Your task to perform on an android device: find which apps use the phone's location Image 0: 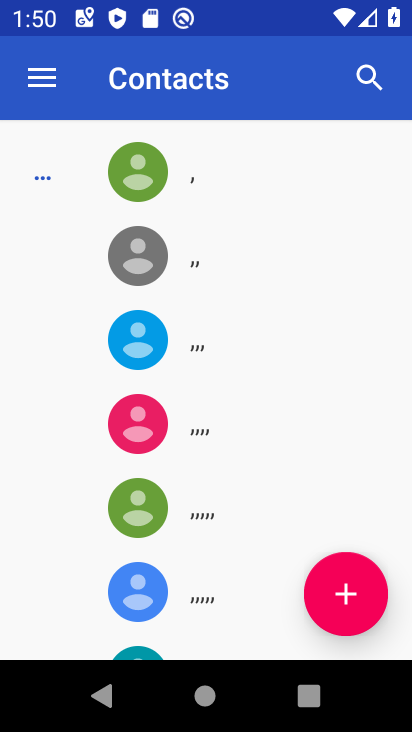
Step 0: press home button
Your task to perform on an android device: find which apps use the phone's location Image 1: 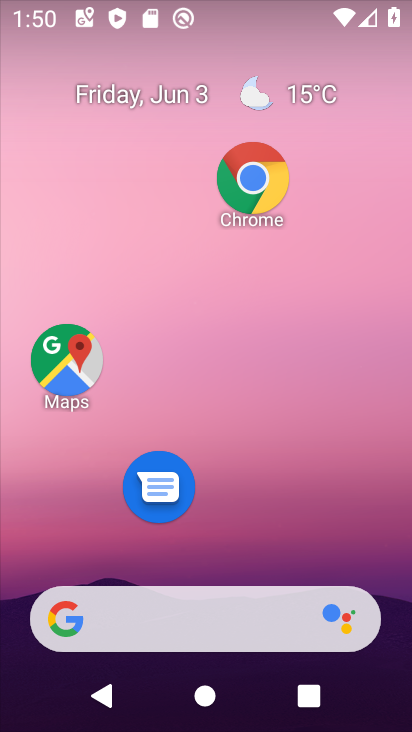
Step 1: drag from (239, 566) to (220, 142)
Your task to perform on an android device: find which apps use the phone's location Image 2: 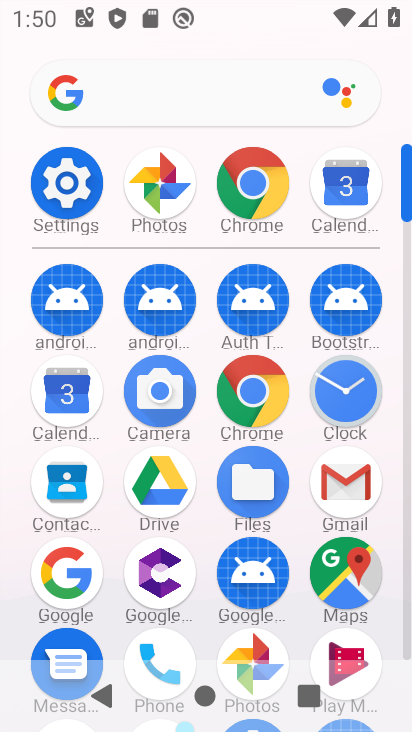
Step 2: click (71, 186)
Your task to perform on an android device: find which apps use the phone's location Image 3: 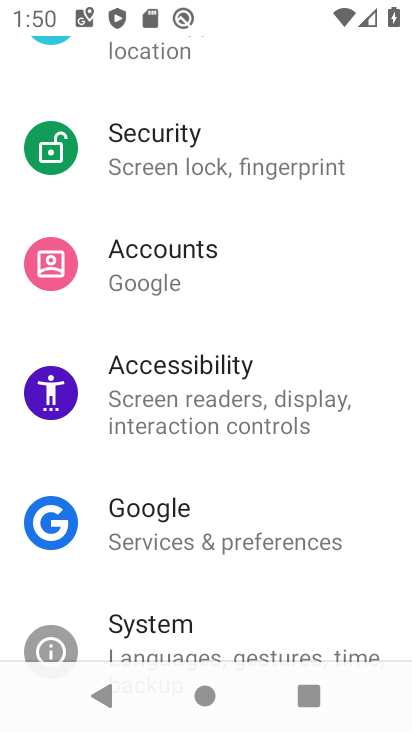
Step 3: drag from (183, 307) to (184, 680)
Your task to perform on an android device: find which apps use the phone's location Image 4: 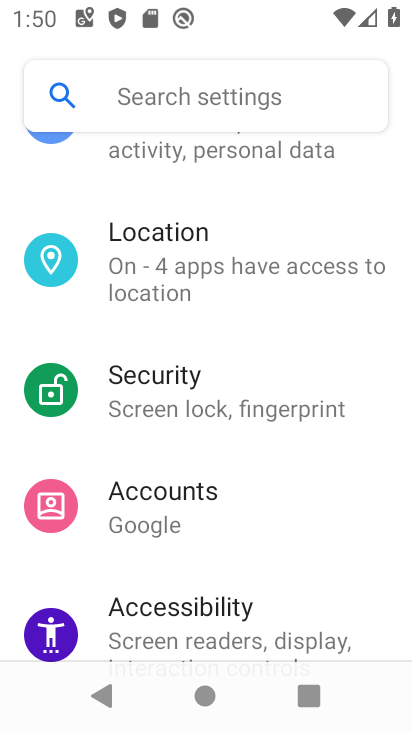
Step 4: click (163, 274)
Your task to perform on an android device: find which apps use the phone's location Image 5: 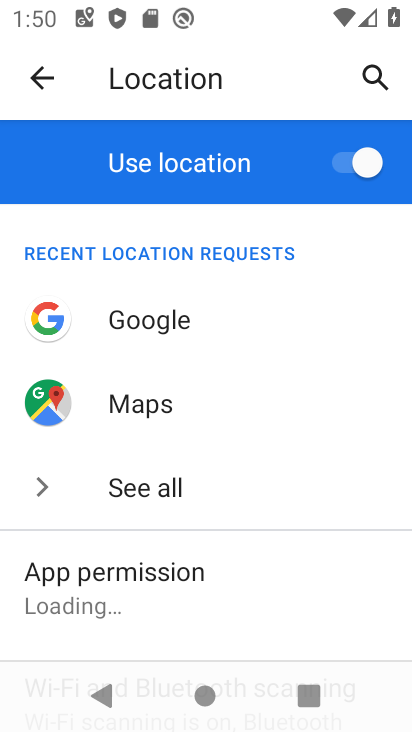
Step 5: click (192, 576)
Your task to perform on an android device: find which apps use the phone's location Image 6: 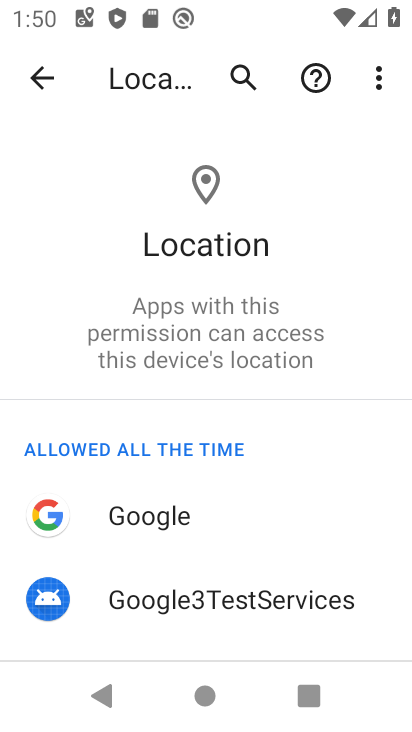
Step 6: task complete